Your task to perform on an android device: Go to calendar. Show me events next week Image 0: 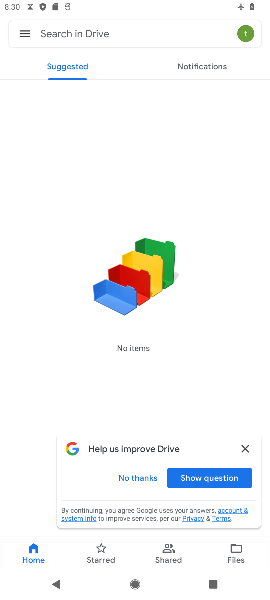
Step 0: press home button
Your task to perform on an android device: Go to calendar. Show me events next week Image 1: 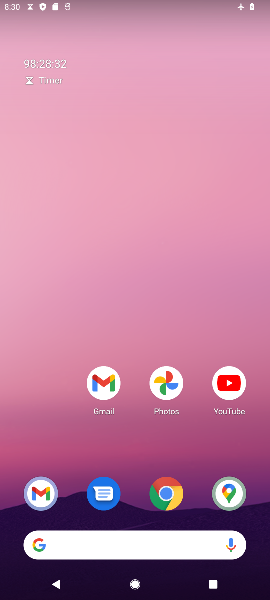
Step 1: drag from (151, 511) to (165, 152)
Your task to perform on an android device: Go to calendar. Show me events next week Image 2: 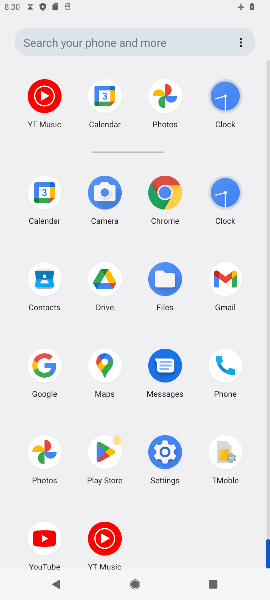
Step 2: click (44, 187)
Your task to perform on an android device: Go to calendar. Show me events next week Image 3: 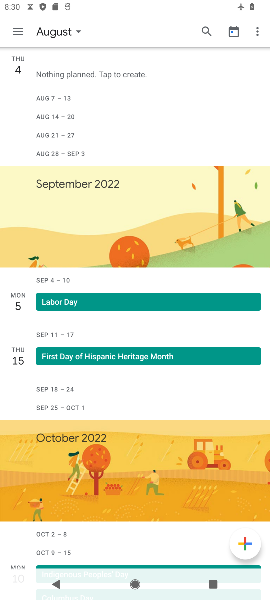
Step 3: click (22, 21)
Your task to perform on an android device: Go to calendar. Show me events next week Image 4: 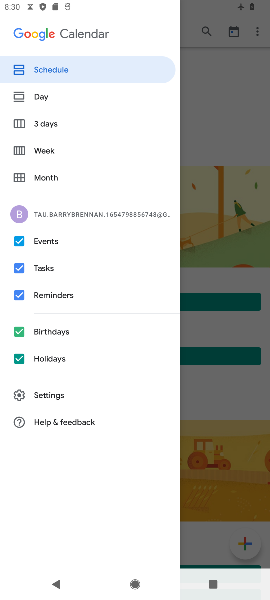
Step 4: click (45, 154)
Your task to perform on an android device: Go to calendar. Show me events next week Image 5: 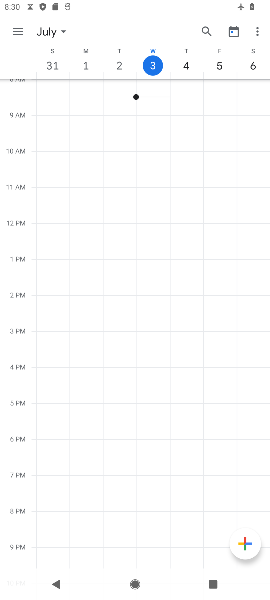
Step 5: task complete